Your task to perform on an android device: change notification settings in the gmail app Image 0: 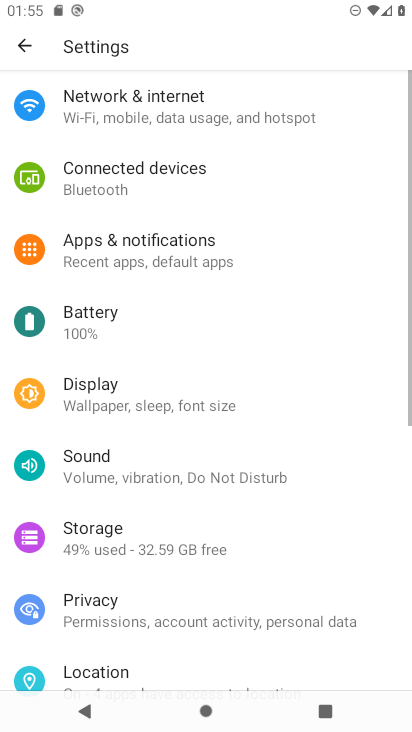
Step 0: press home button
Your task to perform on an android device: change notification settings in the gmail app Image 1: 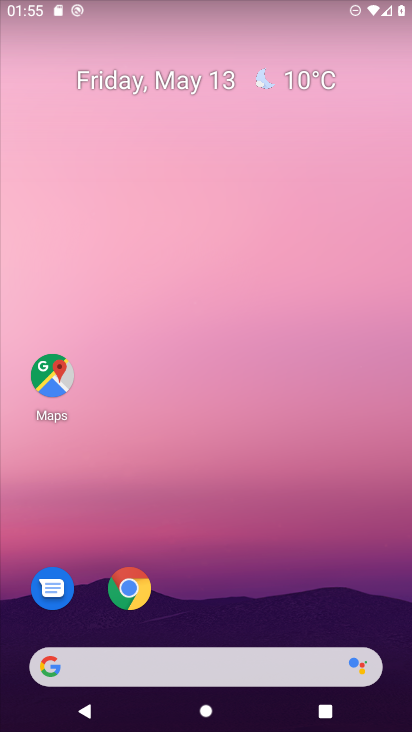
Step 1: drag from (279, 543) to (251, 103)
Your task to perform on an android device: change notification settings in the gmail app Image 2: 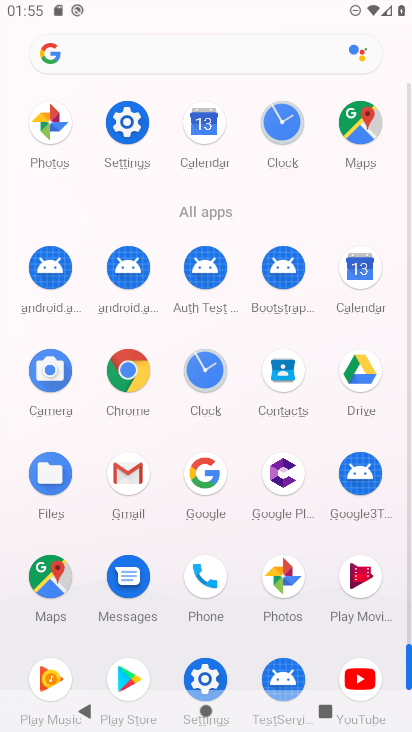
Step 2: click (123, 474)
Your task to perform on an android device: change notification settings in the gmail app Image 3: 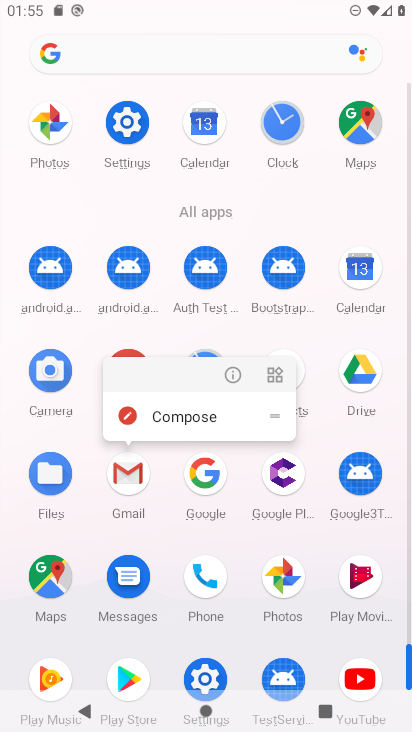
Step 3: click (233, 374)
Your task to perform on an android device: change notification settings in the gmail app Image 4: 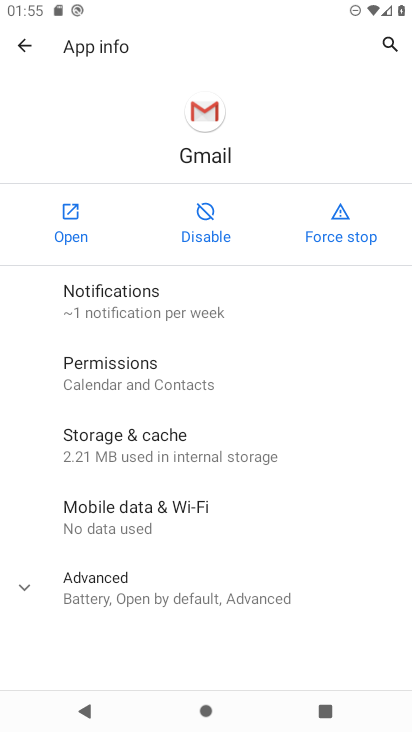
Step 4: click (126, 298)
Your task to perform on an android device: change notification settings in the gmail app Image 5: 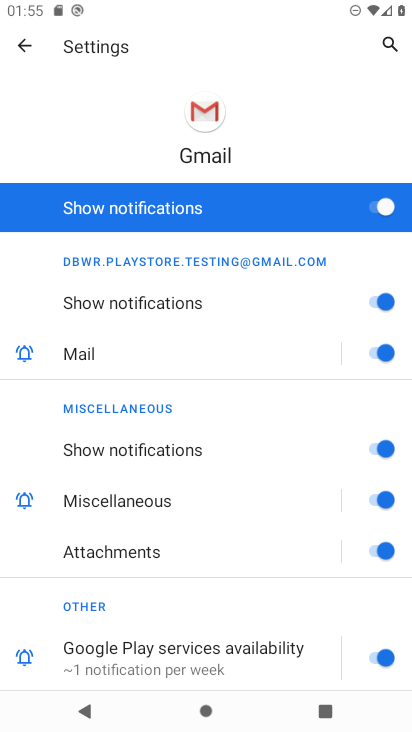
Step 5: task complete